Your task to perform on an android device: turn pop-ups off in chrome Image 0: 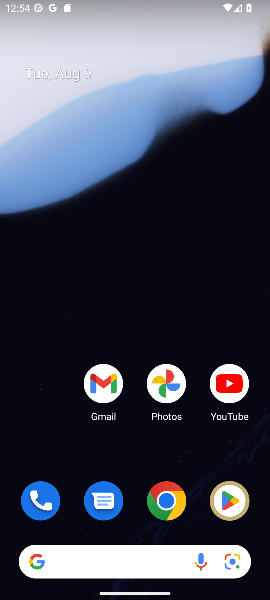
Step 0: click (169, 494)
Your task to perform on an android device: turn pop-ups off in chrome Image 1: 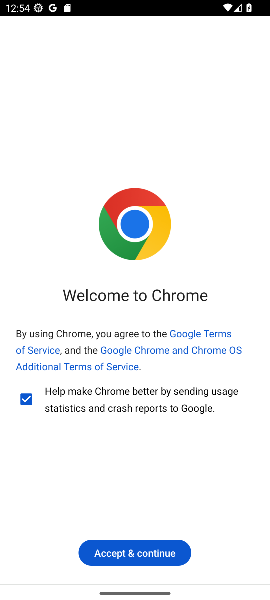
Step 1: click (131, 551)
Your task to perform on an android device: turn pop-ups off in chrome Image 2: 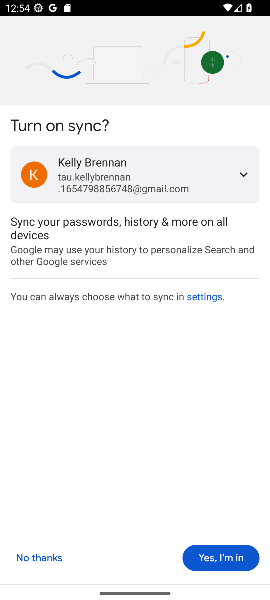
Step 2: click (212, 555)
Your task to perform on an android device: turn pop-ups off in chrome Image 3: 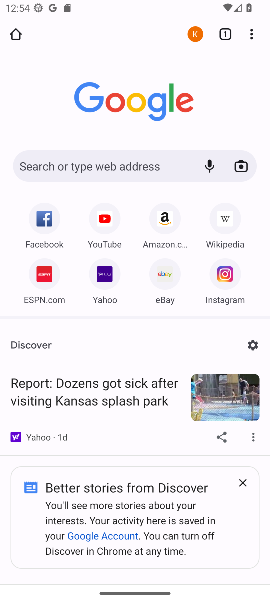
Step 3: click (251, 28)
Your task to perform on an android device: turn pop-ups off in chrome Image 4: 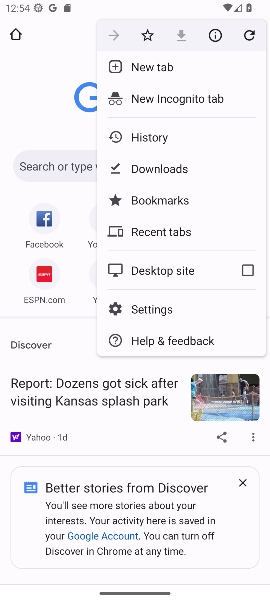
Step 4: click (147, 307)
Your task to perform on an android device: turn pop-ups off in chrome Image 5: 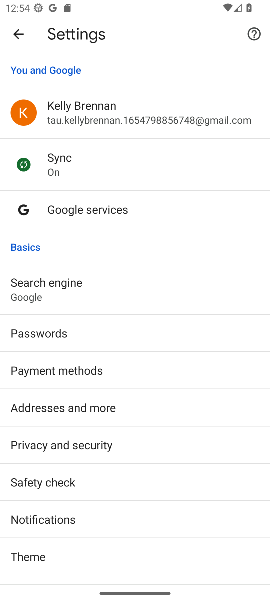
Step 5: drag from (72, 509) to (72, 130)
Your task to perform on an android device: turn pop-ups off in chrome Image 6: 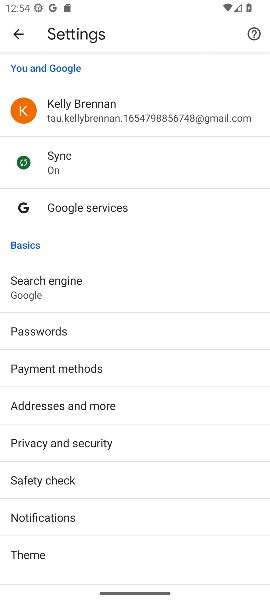
Step 6: drag from (75, 480) to (75, 178)
Your task to perform on an android device: turn pop-ups off in chrome Image 7: 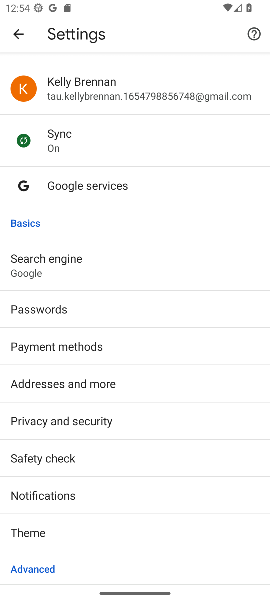
Step 7: drag from (150, 501) to (150, 235)
Your task to perform on an android device: turn pop-ups off in chrome Image 8: 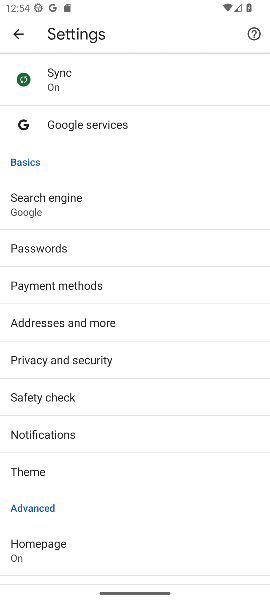
Step 8: drag from (128, 501) to (132, 125)
Your task to perform on an android device: turn pop-ups off in chrome Image 9: 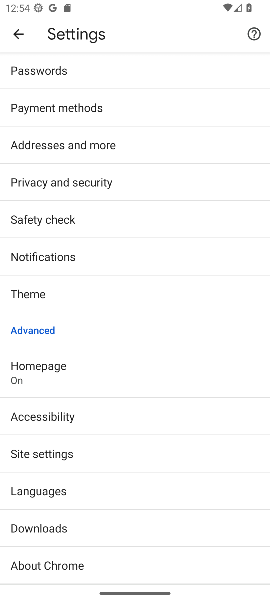
Step 9: click (87, 452)
Your task to perform on an android device: turn pop-ups off in chrome Image 10: 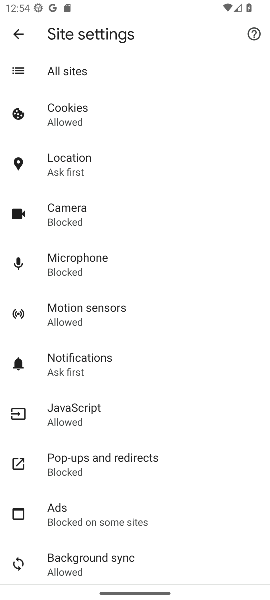
Step 10: click (89, 452)
Your task to perform on an android device: turn pop-ups off in chrome Image 11: 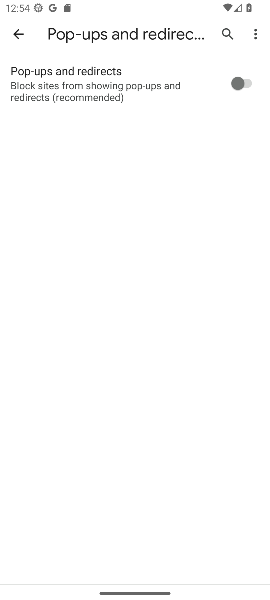
Step 11: task complete